Your task to perform on an android device: check android version Image 0: 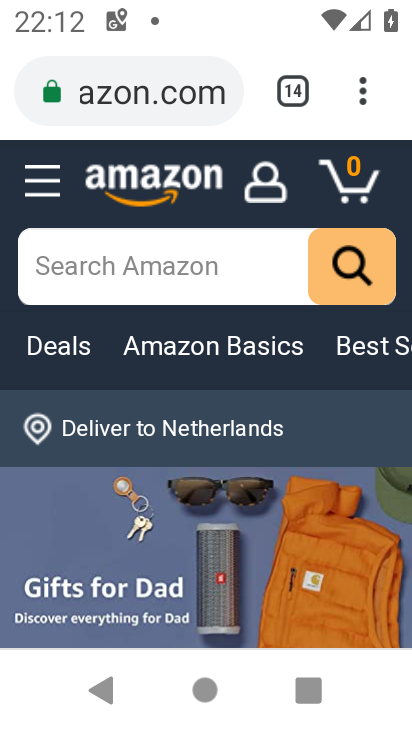
Step 0: press home button
Your task to perform on an android device: check android version Image 1: 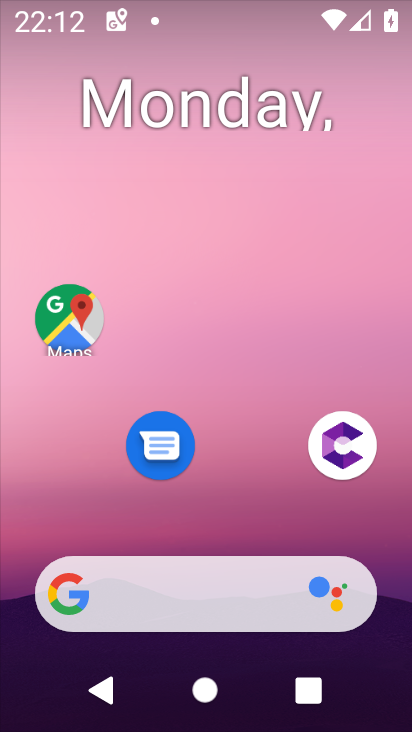
Step 1: drag from (197, 540) to (53, 35)
Your task to perform on an android device: check android version Image 2: 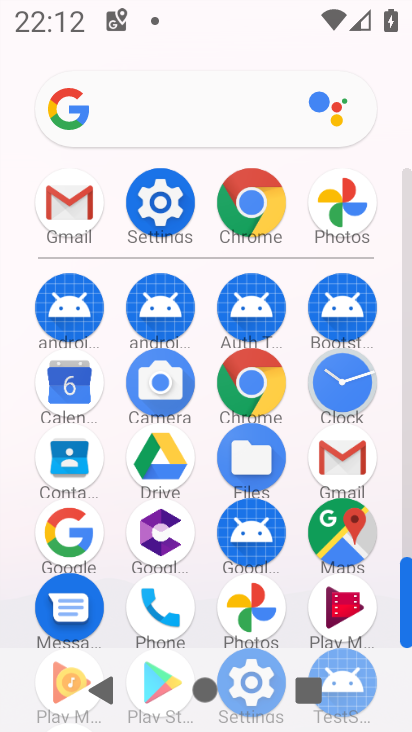
Step 2: click (152, 194)
Your task to perform on an android device: check android version Image 3: 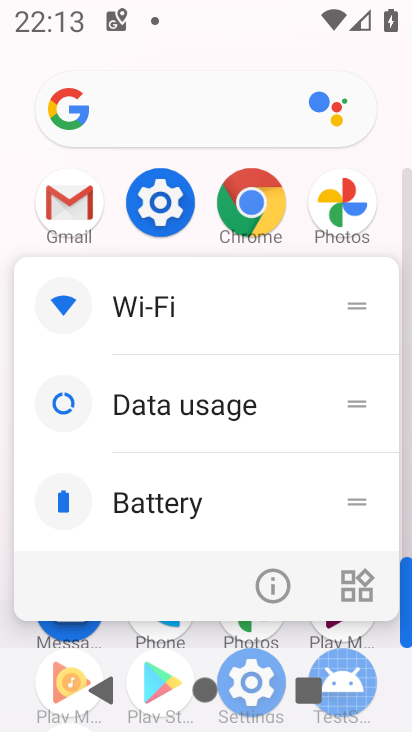
Step 3: click (159, 218)
Your task to perform on an android device: check android version Image 4: 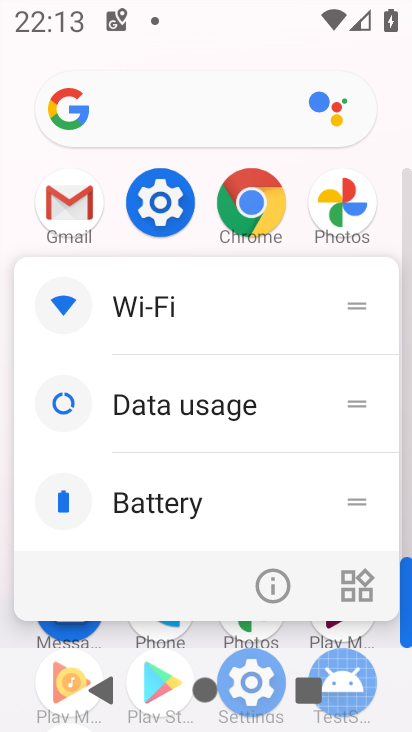
Step 4: click (156, 219)
Your task to perform on an android device: check android version Image 5: 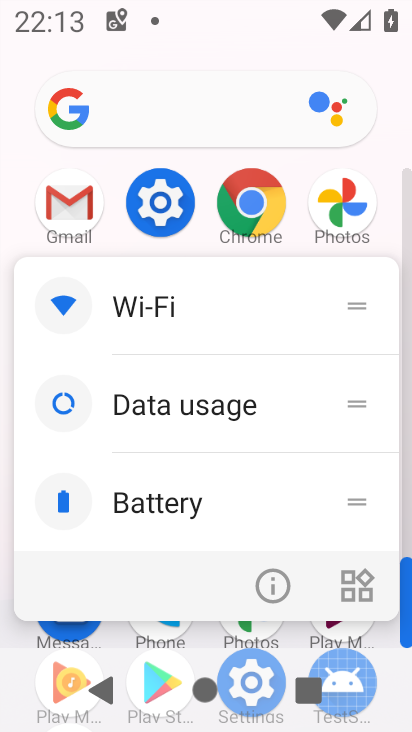
Step 5: click (158, 225)
Your task to perform on an android device: check android version Image 6: 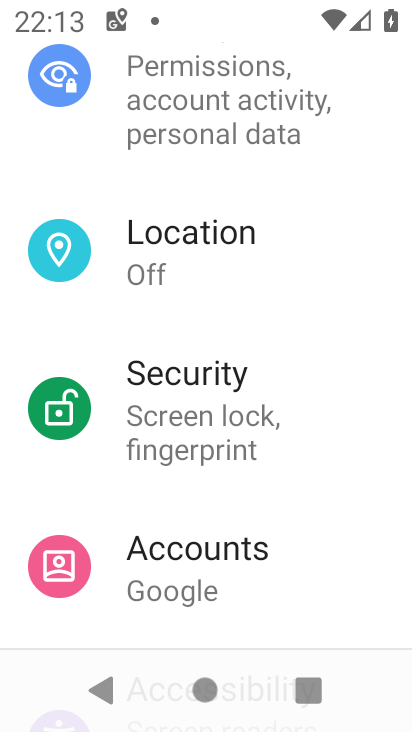
Step 6: drag from (327, 550) to (150, 65)
Your task to perform on an android device: check android version Image 7: 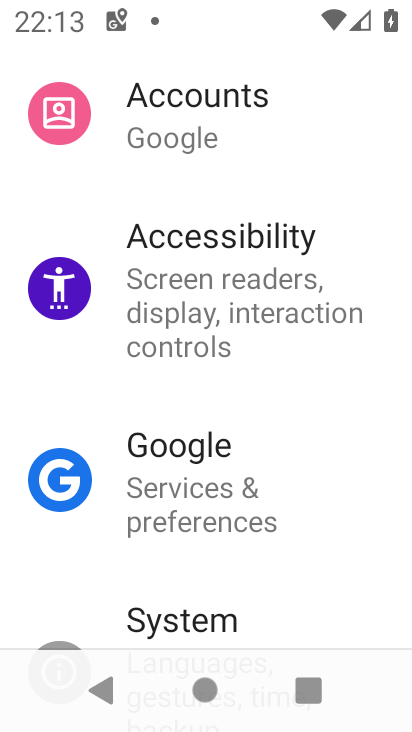
Step 7: drag from (357, 566) to (146, 9)
Your task to perform on an android device: check android version Image 8: 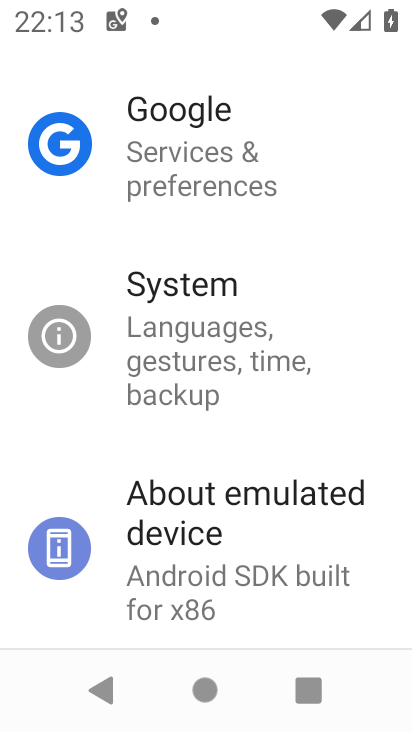
Step 8: click (209, 519)
Your task to perform on an android device: check android version Image 9: 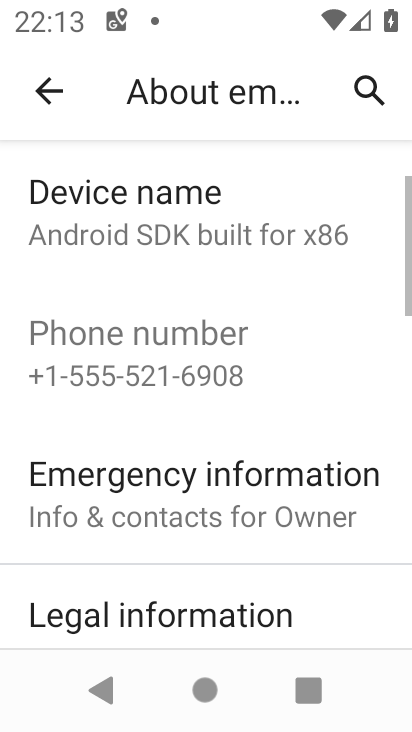
Step 9: task complete